Your task to perform on an android device: What is the recent news? Image 0: 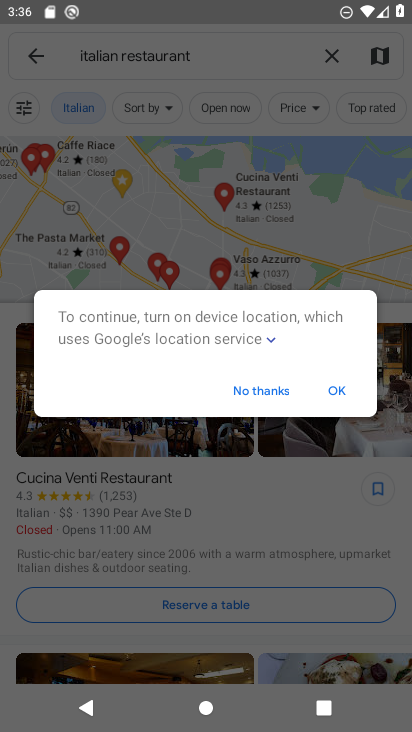
Step 0: press home button
Your task to perform on an android device: What is the recent news? Image 1: 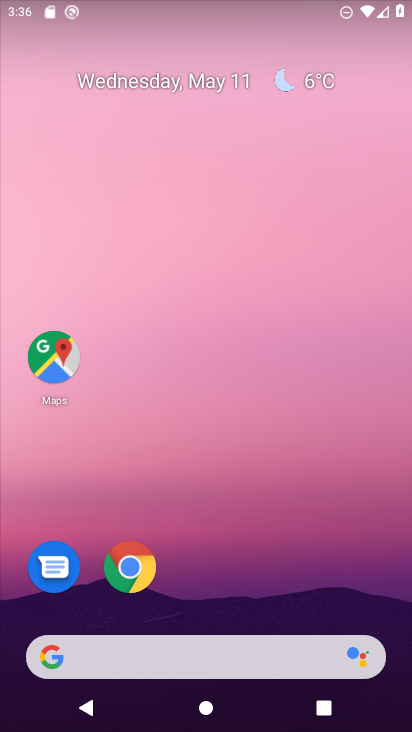
Step 1: task complete